Your task to perform on an android device: Open internet settings Image 0: 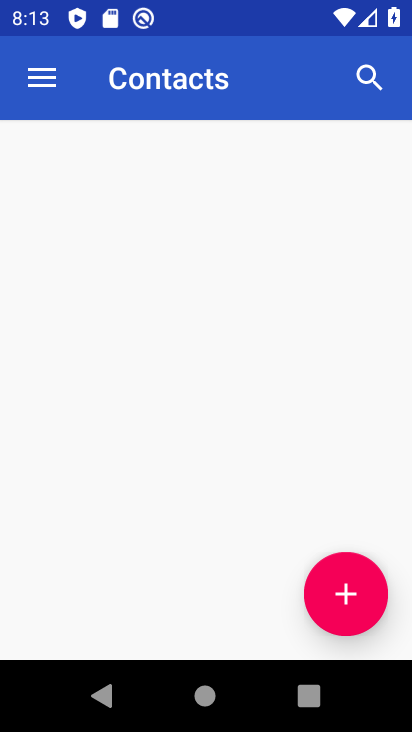
Step 0: drag from (132, 341) to (107, 248)
Your task to perform on an android device: Open internet settings Image 1: 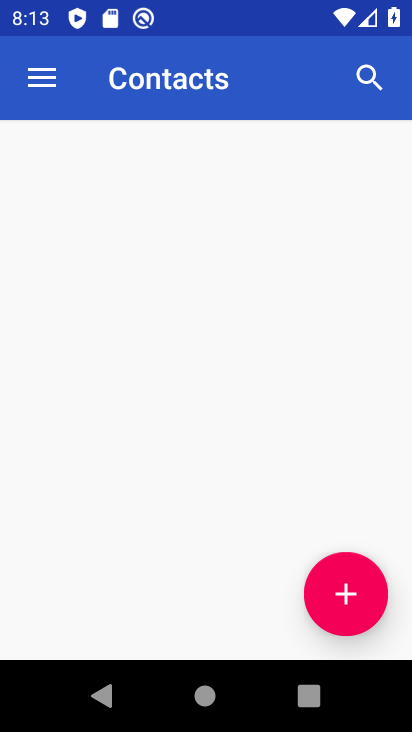
Step 1: press back button
Your task to perform on an android device: Open internet settings Image 2: 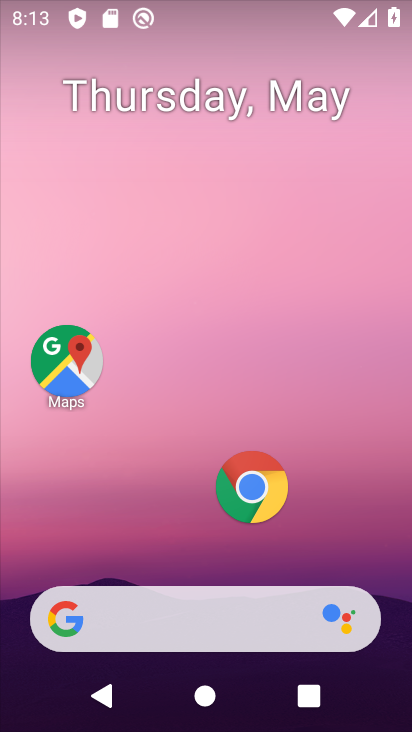
Step 2: drag from (266, 703) to (138, 109)
Your task to perform on an android device: Open internet settings Image 3: 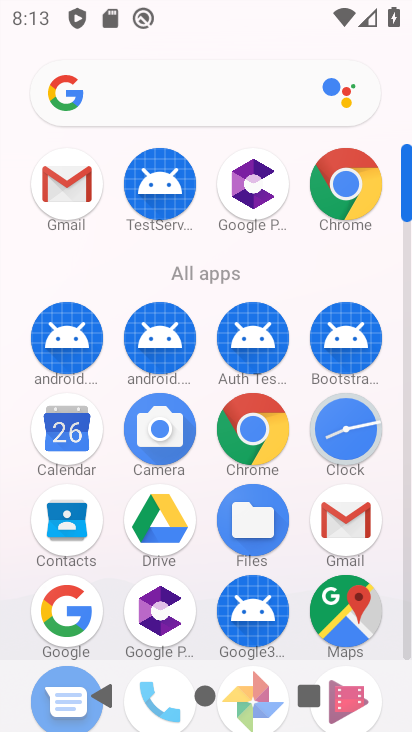
Step 3: click (259, 220)
Your task to perform on an android device: Open internet settings Image 4: 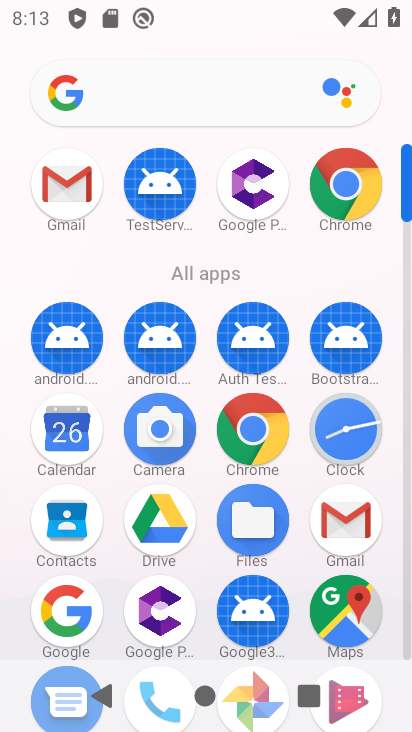
Step 4: drag from (259, 487) to (257, 240)
Your task to perform on an android device: Open internet settings Image 5: 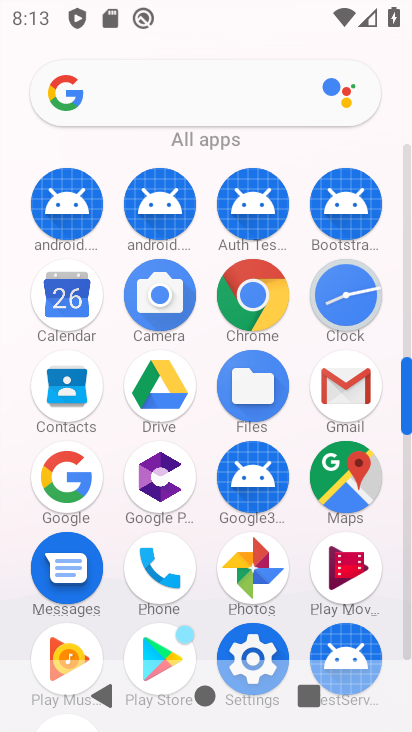
Step 5: drag from (297, 574) to (297, 334)
Your task to perform on an android device: Open internet settings Image 6: 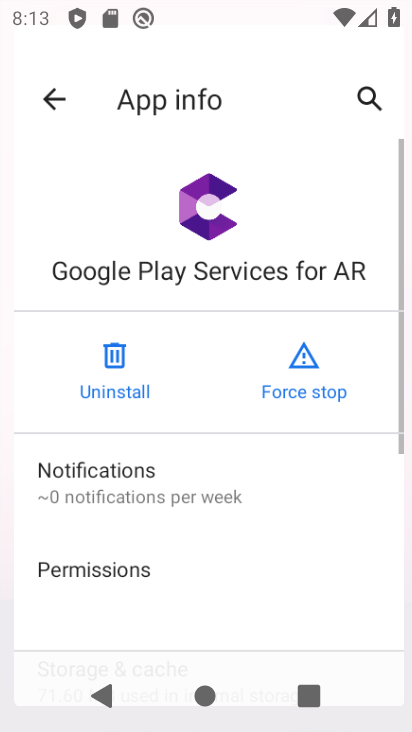
Step 6: click (251, 650)
Your task to perform on an android device: Open internet settings Image 7: 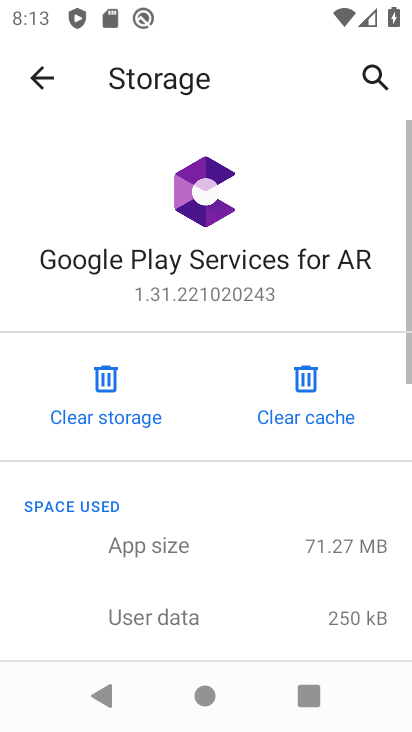
Step 7: click (39, 87)
Your task to perform on an android device: Open internet settings Image 8: 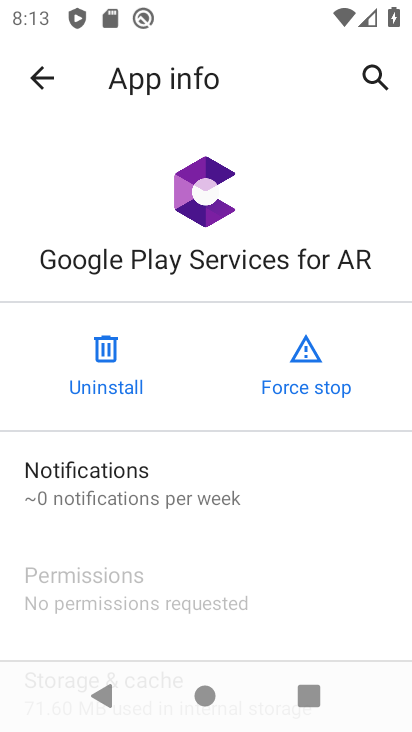
Step 8: click (28, 81)
Your task to perform on an android device: Open internet settings Image 9: 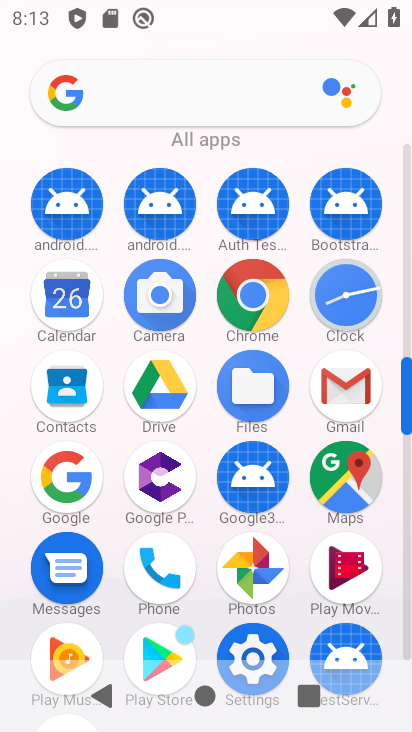
Step 9: click (240, 637)
Your task to perform on an android device: Open internet settings Image 10: 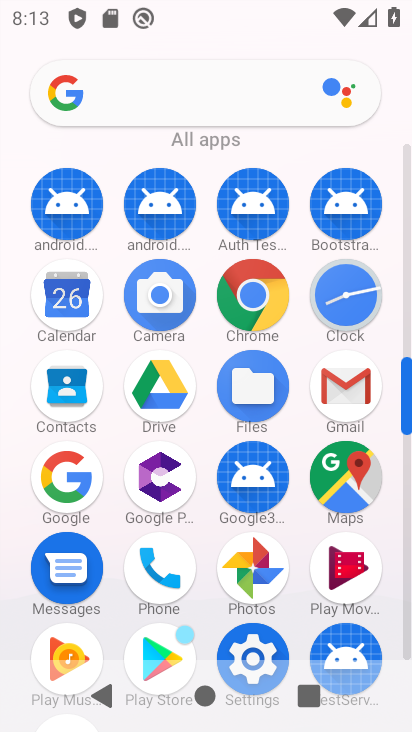
Step 10: click (255, 652)
Your task to perform on an android device: Open internet settings Image 11: 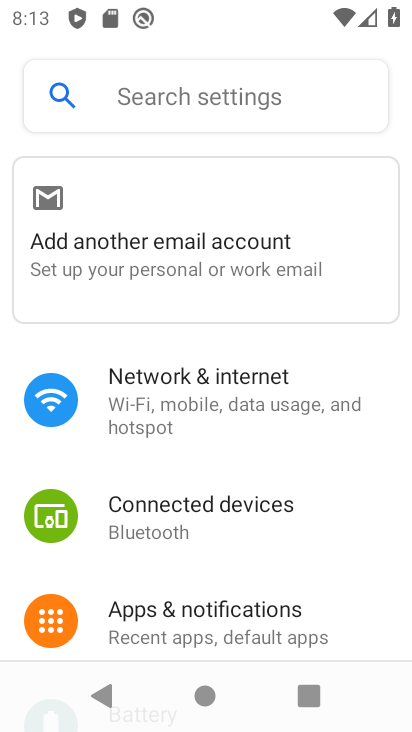
Step 11: click (157, 228)
Your task to perform on an android device: Open internet settings Image 12: 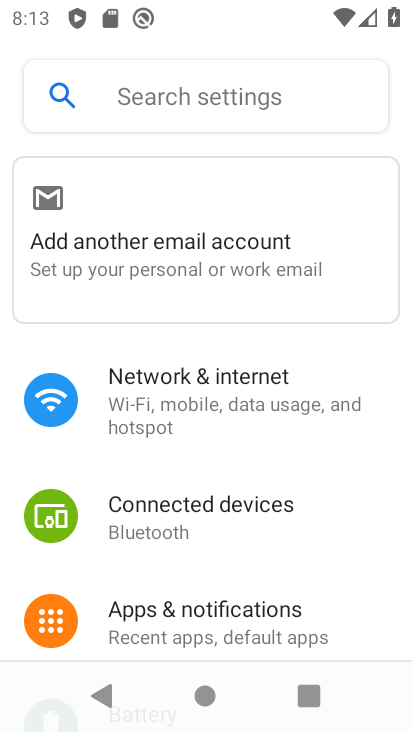
Step 12: click (161, 406)
Your task to perform on an android device: Open internet settings Image 13: 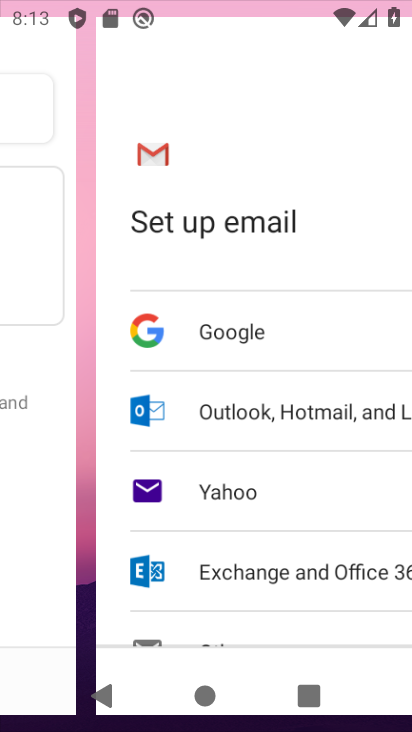
Step 13: click (161, 406)
Your task to perform on an android device: Open internet settings Image 14: 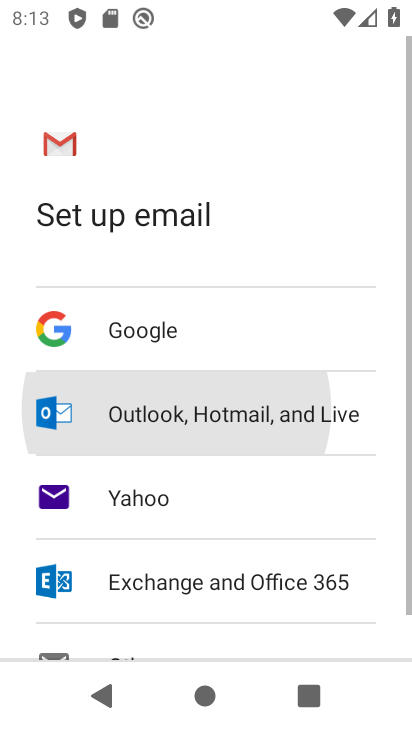
Step 14: click (161, 406)
Your task to perform on an android device: Open internet settings Image 15: 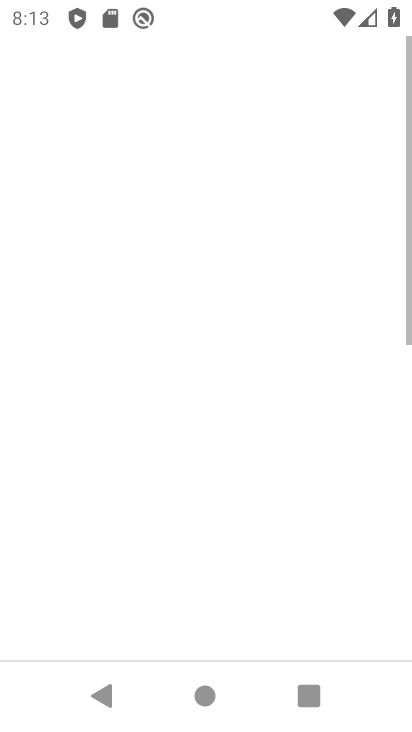
Step 15: task complete